Your task to perform on an android device: Open Maps and search for coffee Image 0: 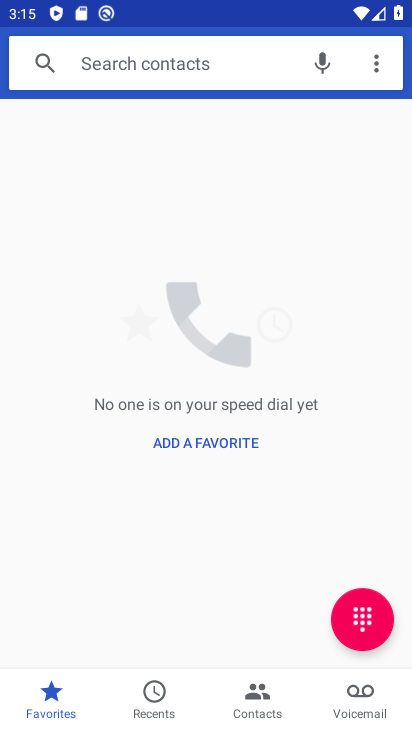
Step 0: press home button
Your task to perform on an android device: Open Maps and search for coffee Image 1: 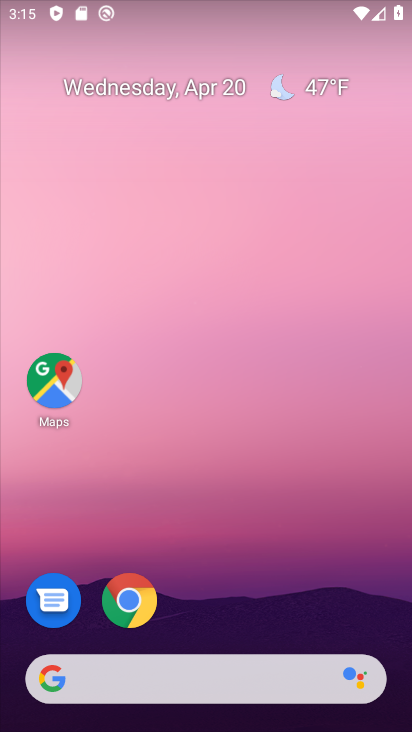
Step 1: drag from (312, 563) to (162, 94)
Your task to perform on an android device: Open Maps and search for coffee Image 2: 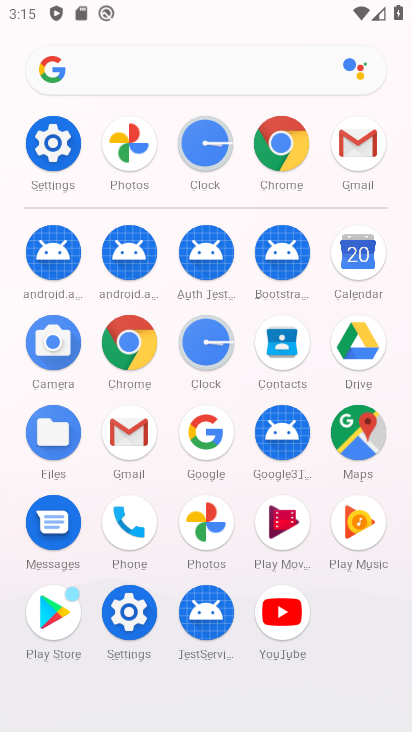
Step 2: click (329, 422)
Your task to perform on an android device: Open Maps and search for coffee Image 3: 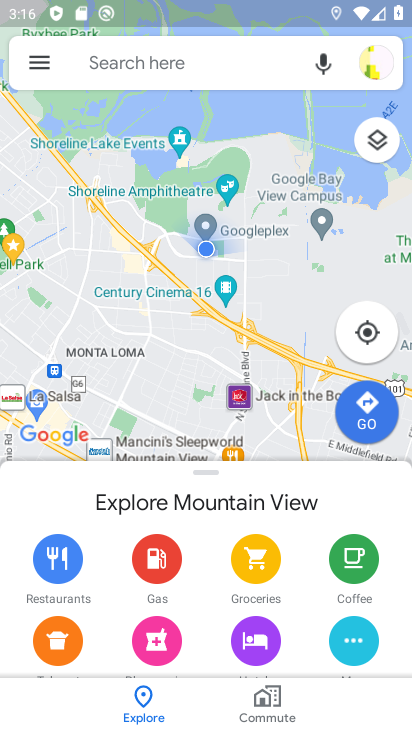
Step 3: click (139, 65)
Your task to perform on an android device: Open Maps and search for coffee Image 4: 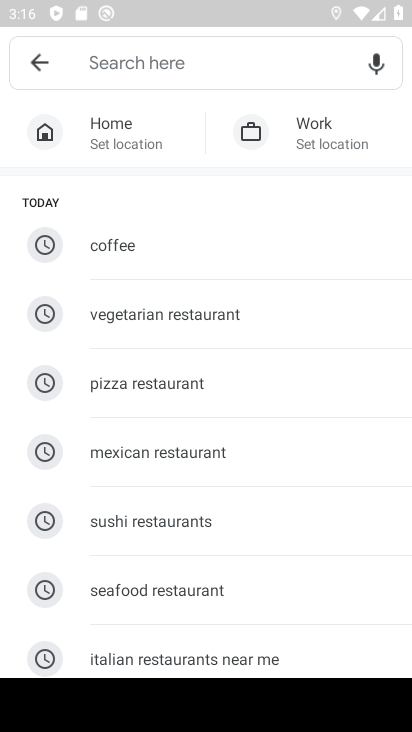
Step 4: click (159, 245)
Your task to perform on an android device: Open Maps and search for coffee Image 5: 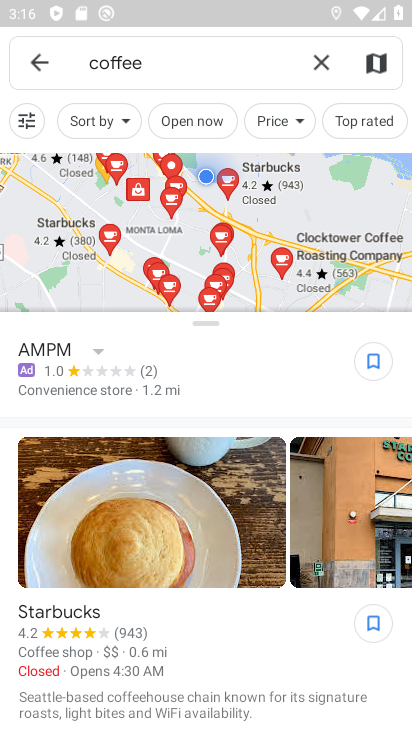
Step 5: task complete